Your task to perform on an android device: Open Google Image 0: 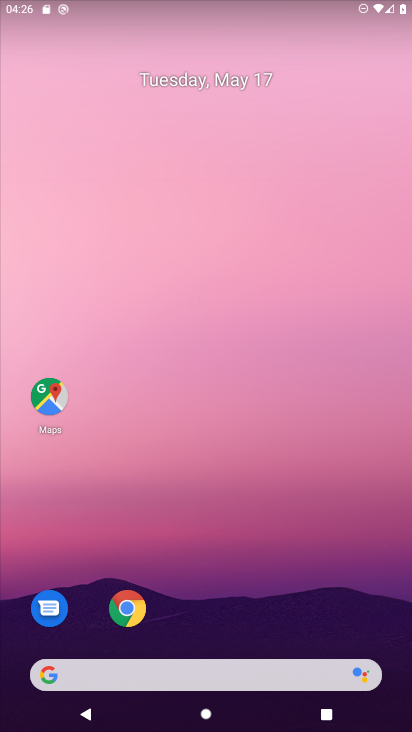
Step 0: drag from (172, 655) to (237, 195)
Your task to perform on an android device: Open Google Image 1: 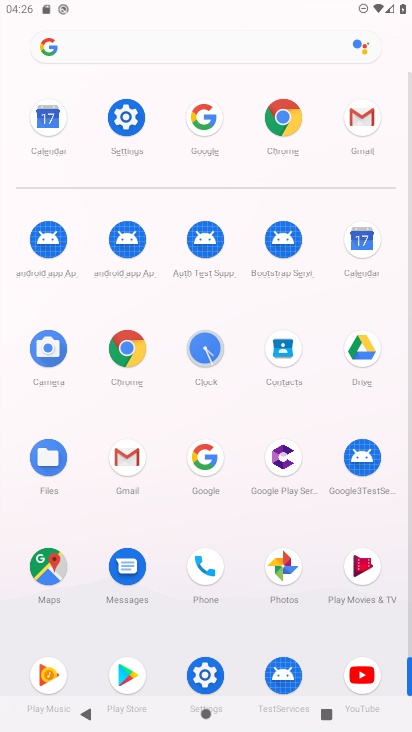
Step 1: click (207, 458)
Your task to perform on an android device: Open Google Image 2: 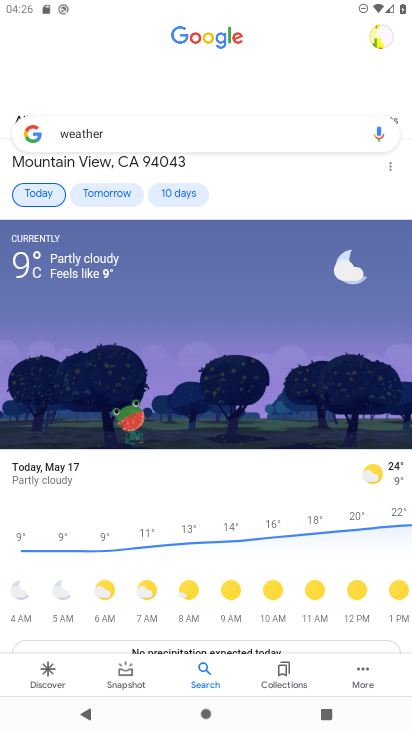
Step 2: task complete